Your task to perform on an android device: find which apps use the phone's location Image 0: 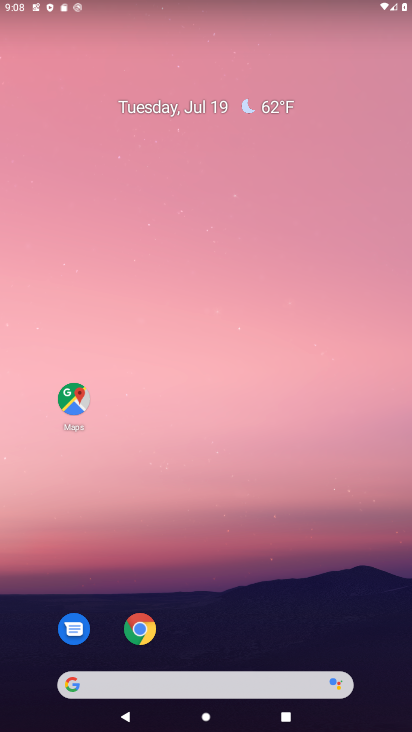
Step 0: drag from (198, 650) to (182, 149)
Your task to perform on an android device: find which apps use the phone's location Image 1: 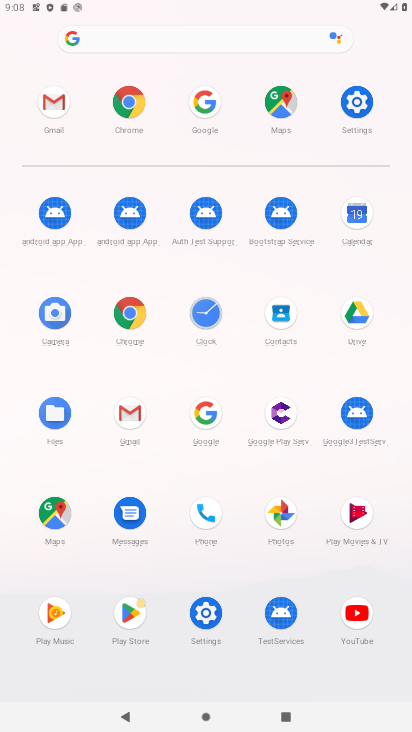
Step 1: click (354, 99)
Your task to perform on an android device: find which apps use the phone's location Image 2: 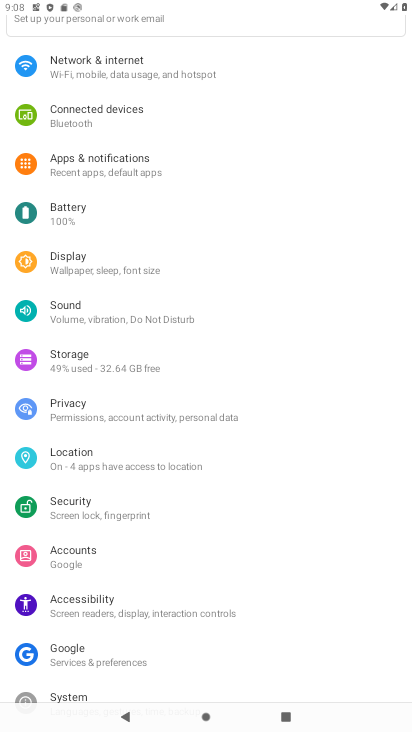
Step 2: click (102, 449)
Your task to perform on an android device: find which apps use the phone's location Image 3: 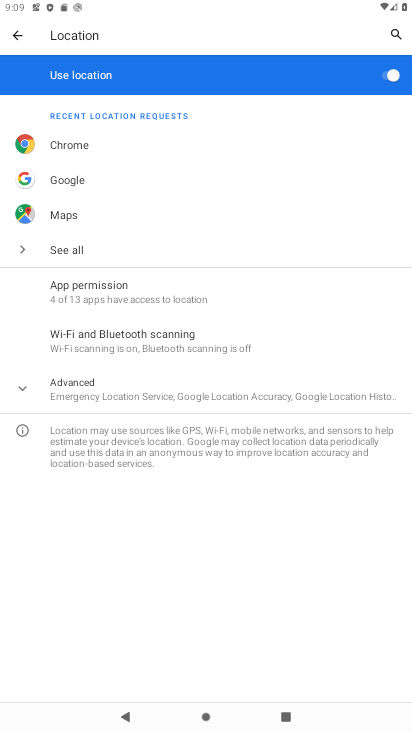
Step 3: click (26, 382)
Your task to perform on an android device: find which apps use the phone's location Image 4: 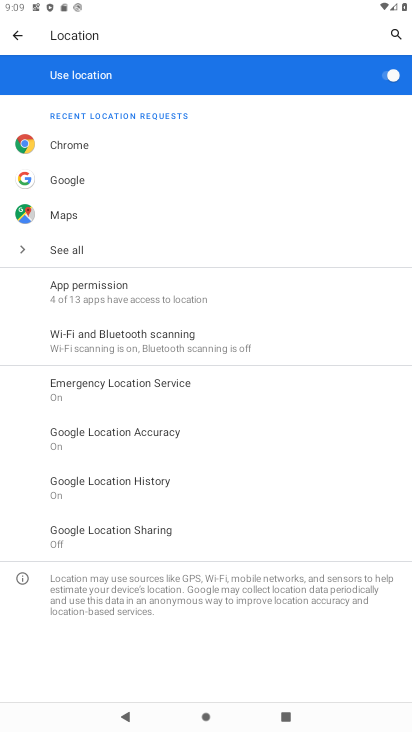
Step 4: click (89, 287)
Your task to perform on an android device: find which apps use the phone's location Image 5: 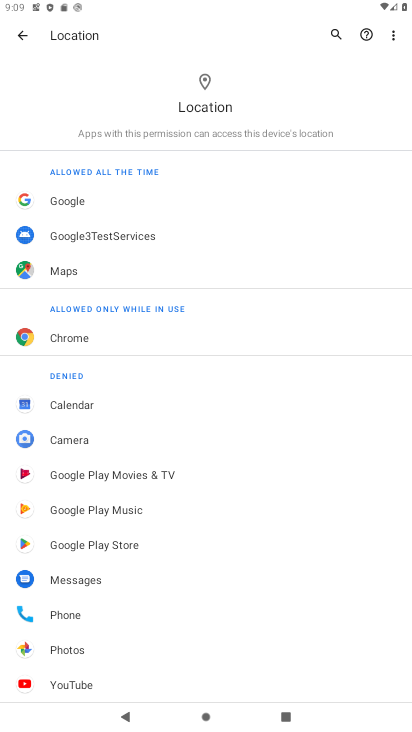
Step 5: task complete